Your task to perform on an android device: change your default location settings in chrome Image 0: 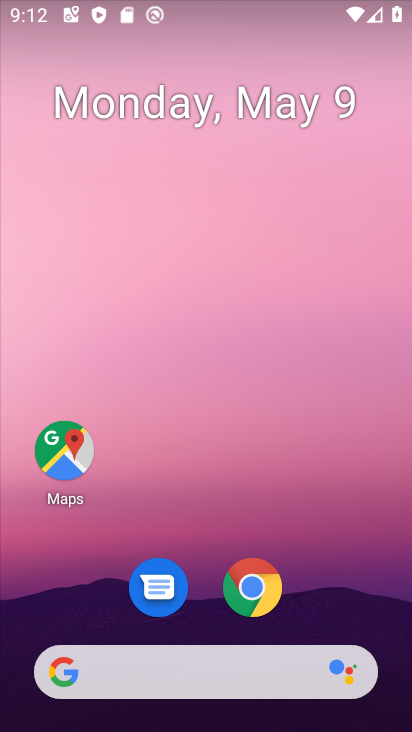
Step 0: click (248, 588)
Your task to perform on an android device: change your default location settings in chrome Image 1: 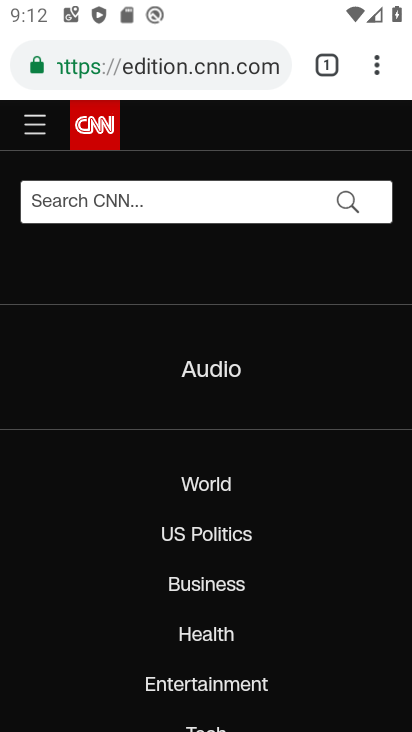
Step 1: click (393, 62)
Your task to perform on an android device: change your default location settings in chrome Image 2: 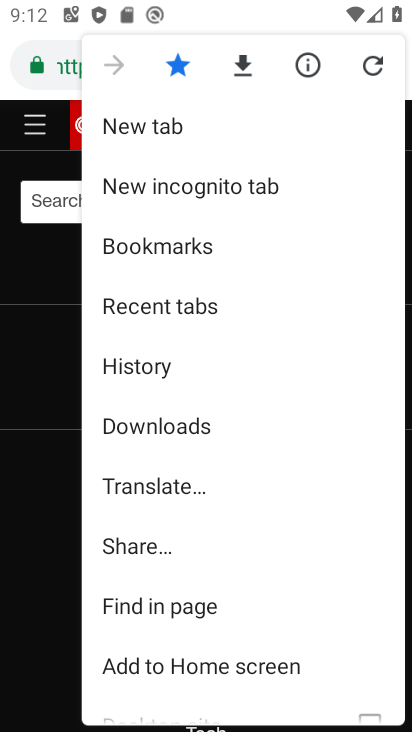
Step 2: drag from (152, 632) to (256, 270)
Your task to perform on an android device: change your default location settings in chrome Image 3: 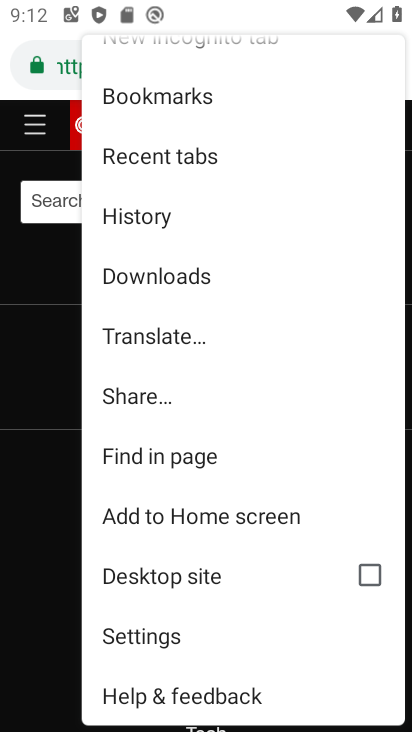
Step 3: click (217, 647)
Your task to perform on an android device: change your default location settings in chrome Image 4: 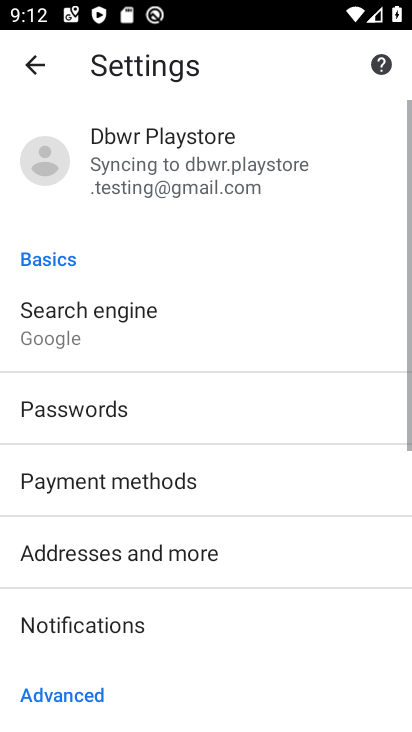
Step 4: drag from (217, 647) to (208, 180)
Your task to perform on an android device: change your default location settings in chrome Image 5: 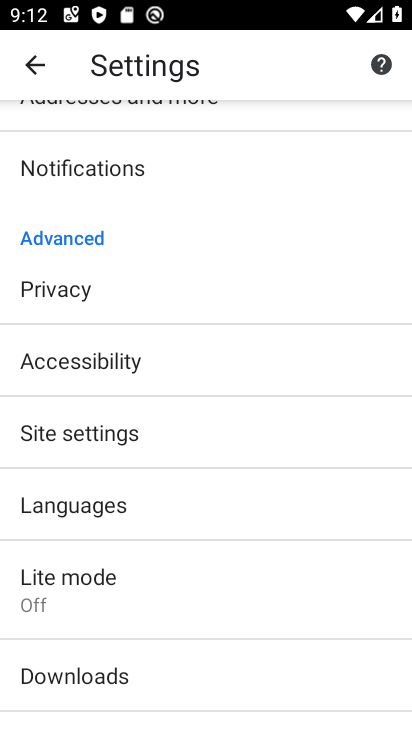
Step 5: drag from (286, 229) to (324, 653)
Your task to perform on an android device: change your default location settings in chrome Image 6: 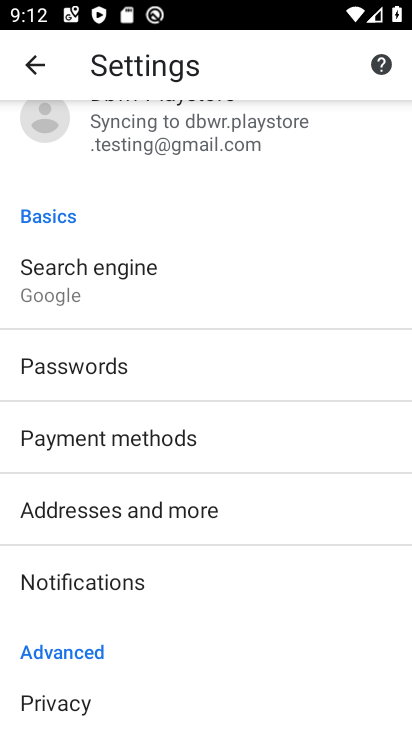
Step 6: drag from (91, 671) to (181, 234)
Your task to perform on an android device: change your default location settings in chrome Image 7: 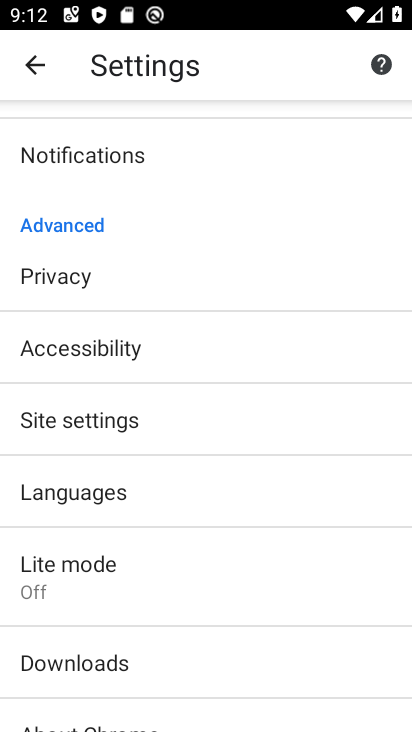
Step 7: drag from (102, 642) to (159, 207)
Your task to perform on an android device: change your default location settings in chrome Image 8: 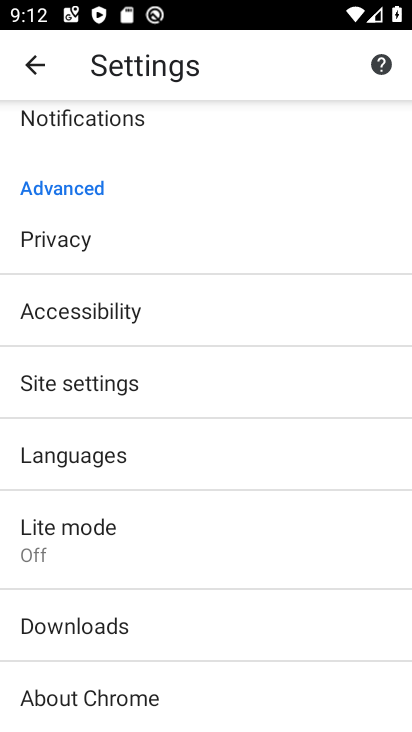
Step 8: click (176, 370)
Your task to perform on an android device: change your default location settings in chrome Image 9: 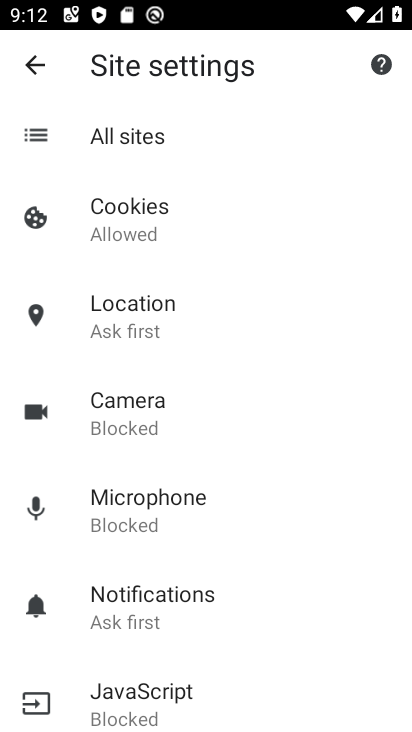
Step 9: click (173, 330)
Your task to perform on an android device: change your default location settings in chrome Image 10: 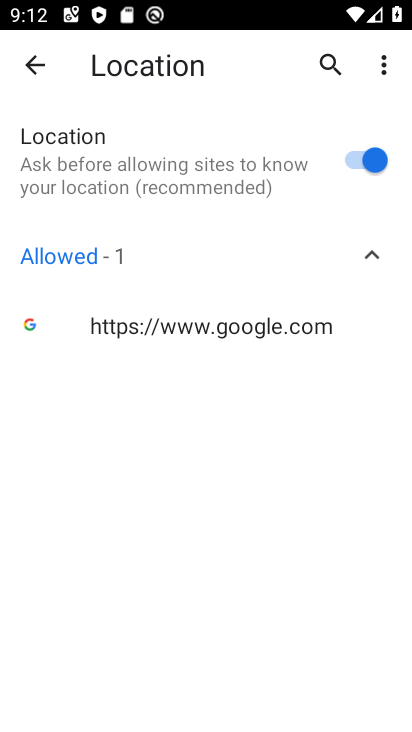
Step 10: click (350, 161)
Your task to perform on an android device: change your default location settings in chrome Image 11: 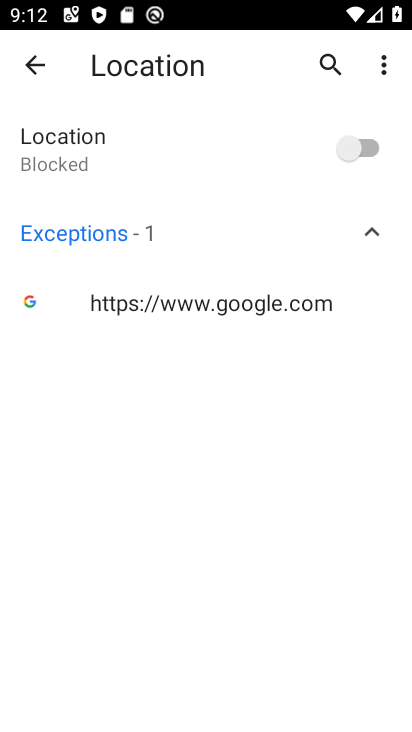
Step 11: task complete